Your task to perform on an android device: turn off improve location accuracy Image 0: 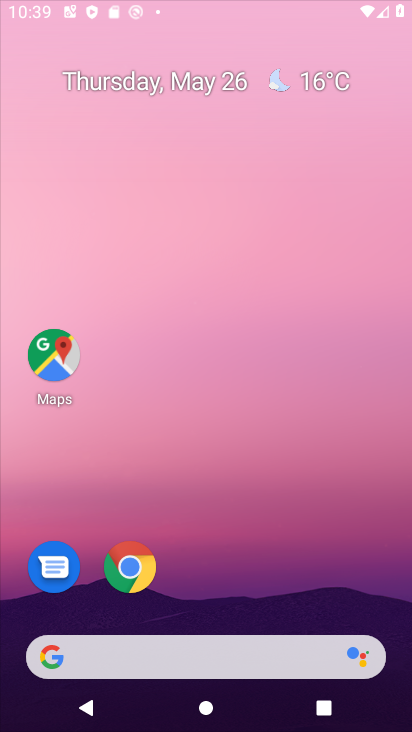
Step 0: press home button
Your task to perform on an android device: turn off improve location accuracy Image 1: 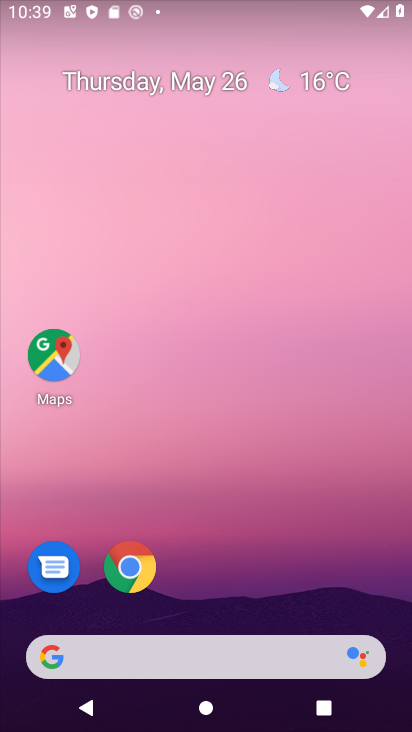
Step 1: drag from (209, 615) to (218, 40)
Your task to perform on an android device: turn off improve location accuracy Image 2: 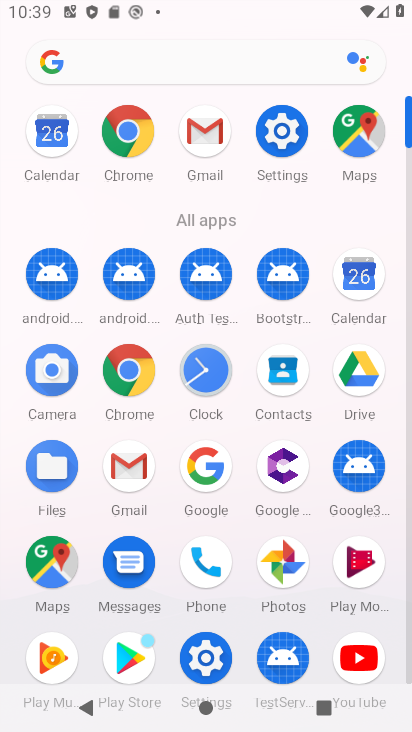
Step 2: click (285, 123)
Your task to perform on an android device: turn off improve location accuracy Image 3: 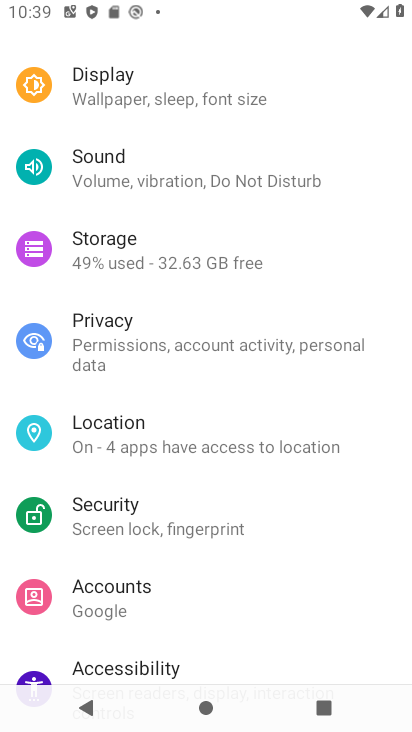
Step 3: click (159, 423)
Your task to perform on an android device: turn off improve location accuracy Image 4: 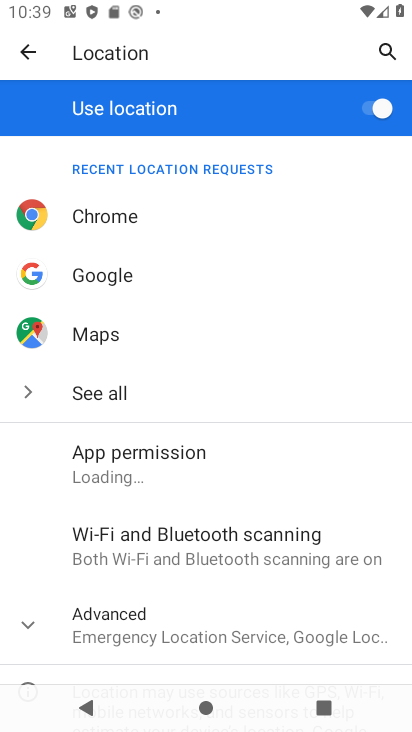
Step 4: click (32, 619)
Your task to perform on an android device: turn off improve location accuracy Image 5: 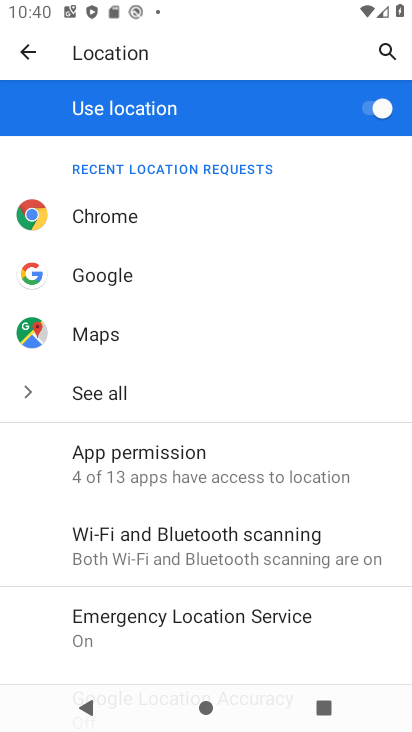
Step 5: drag from (217, 590) to (214, 181)
Your task to perform on an android device: turn off improve location accuracy Image 6: 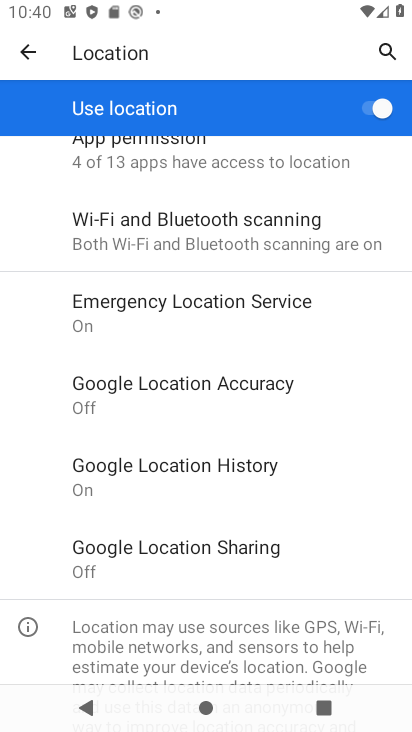
Step 6: click (141, 396)
Your task to perform on an android device: turn off improve location accuracy Image 7: 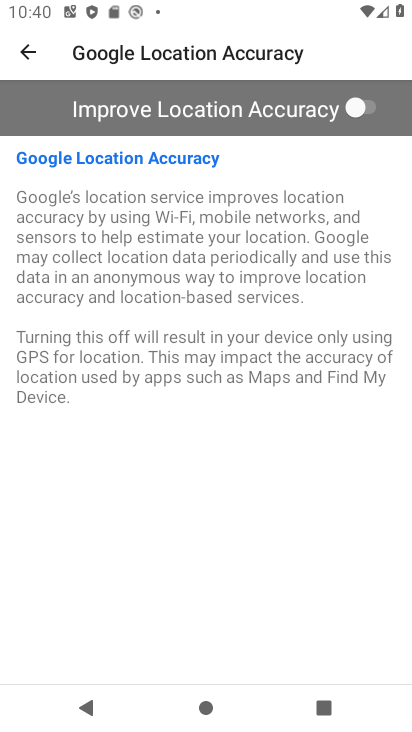
Step 7: task complete